Your task to perform on an android device: make emails show in primary in the gmail app Image 0: 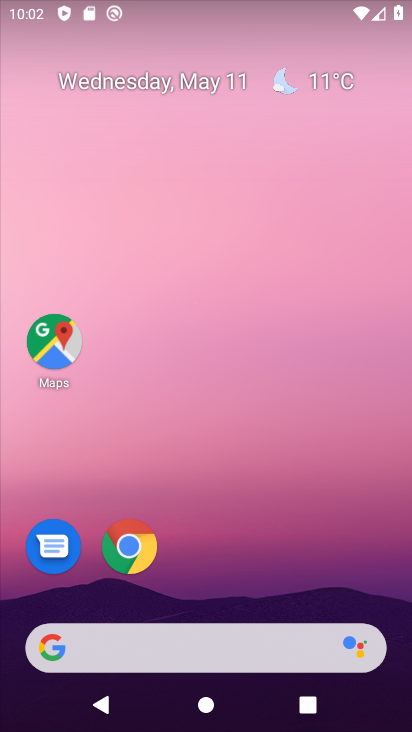
Step 0: drag from (261, 603) to (290, 11)
Your task to perform on an android device: make emails show in primary in the gmail app Image 1: 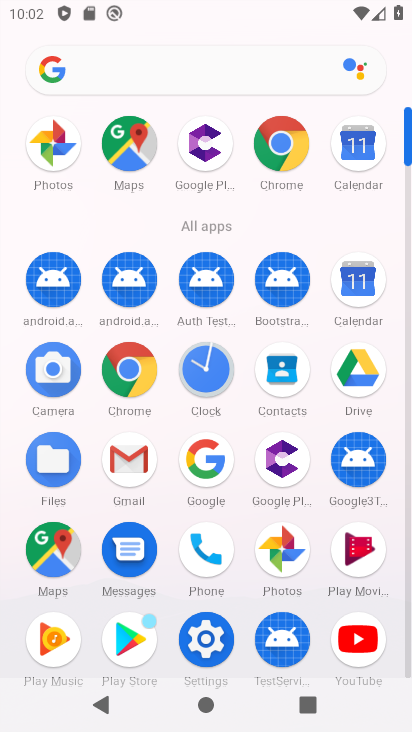
Step 1: click (128, 467)
Your task to perform on an android device: make emails show in primary in the gmail app Image 2: 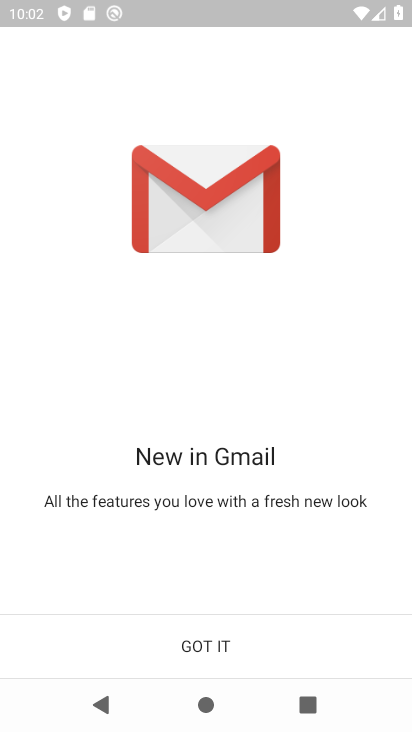
Step 2: click (209, 639)
Your task to perform on an android device: make emails show in primary in the gmail app Image 3: 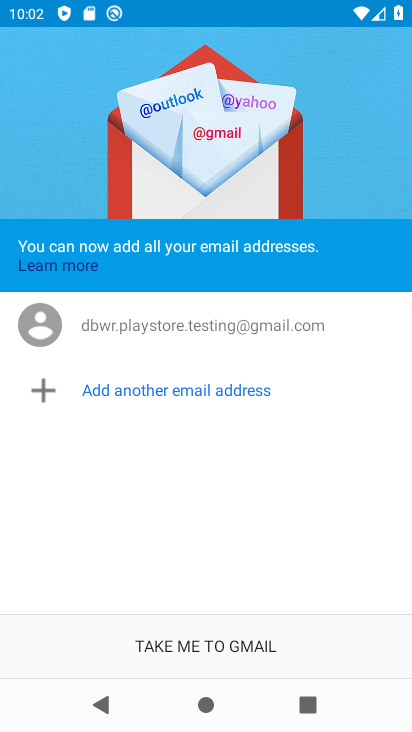
Step 3: click (209, 639)
Your task to perform on an android device: make emails show in primary in the gmail app Image 4: 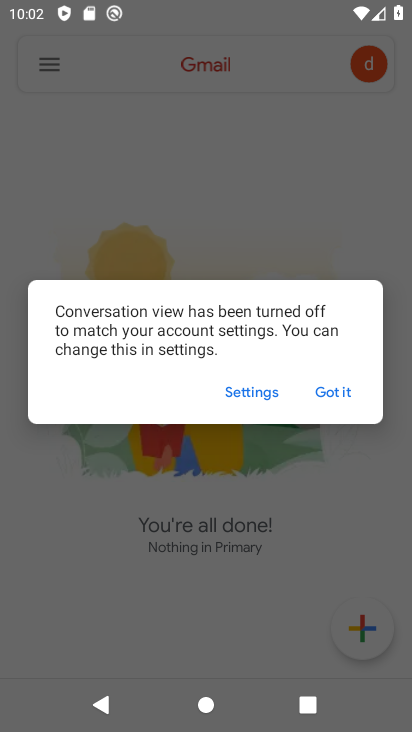
Step 4: click (317, 390)
Your task to perform on an android device: make emails show in primary in the gmail app Image 5: 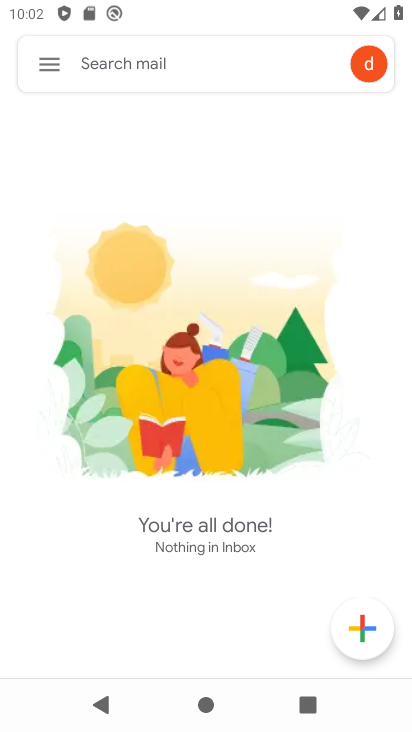
Step 5: click (50, 68)
Your task to perform on an android device: make emails show in primary in the gmail app Image 6: 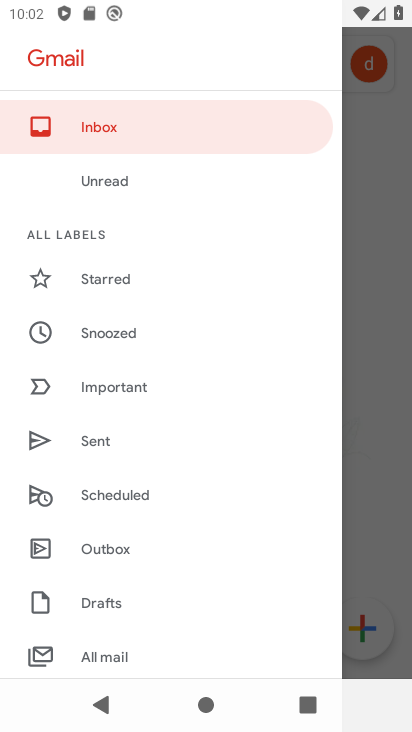
Step 6: click (64, 173)
Your task to perform on an android device: make emails show in primary in the gmail app Image 7: 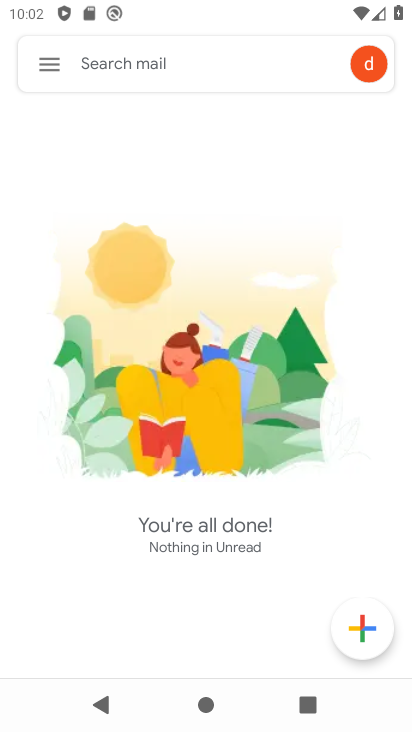
Step 7: task complete